Your task to perform on an android device: manage bookmarks in the chrome app Image 0: 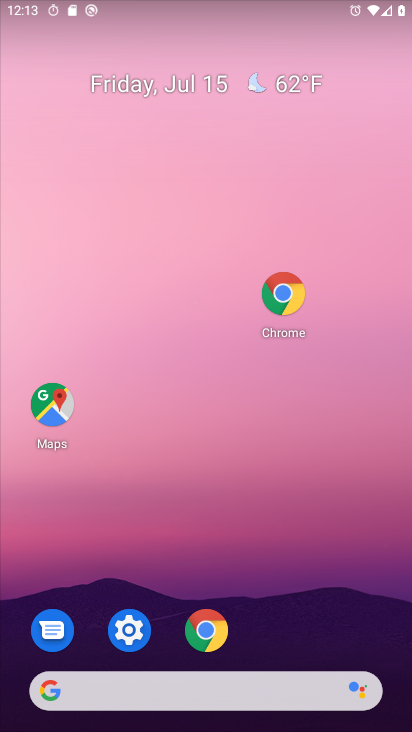
Step 0: drag from (292, 650) to (216, 95)
Your task to perform on an android device: manage bookmarks in the chrome app Image 1: 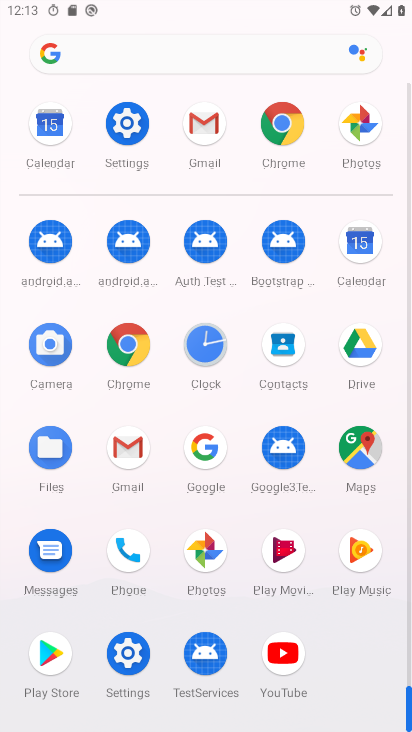
Step 1: click (289, 116)
Your task to perform on an android device: manage bookmarks in the chrome app Image 2: 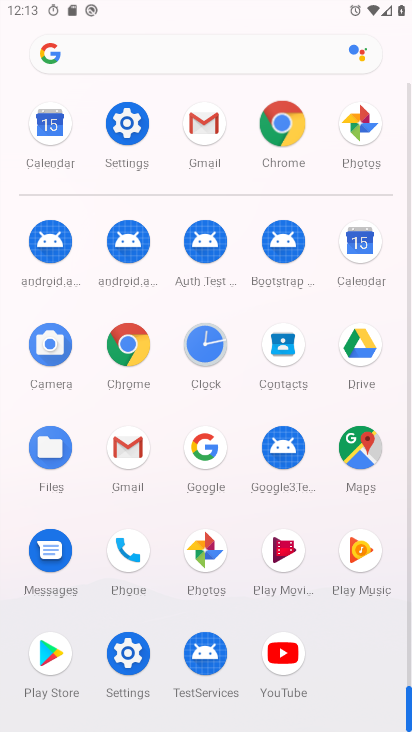
Step 2: click (285, 115)
Your task to perform on an android device: manage bookmarks in the chrome app Image 3: 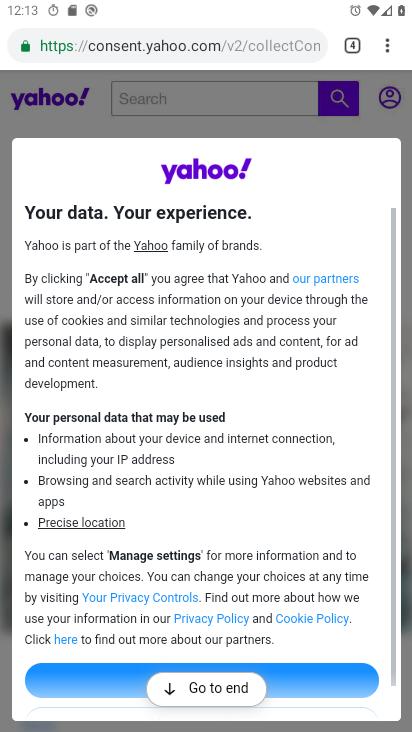
Step 3: drag from (386, 39) to (237, 240)
Your task to perform on an android device: manage bookmarks in the chrome app Image 4: 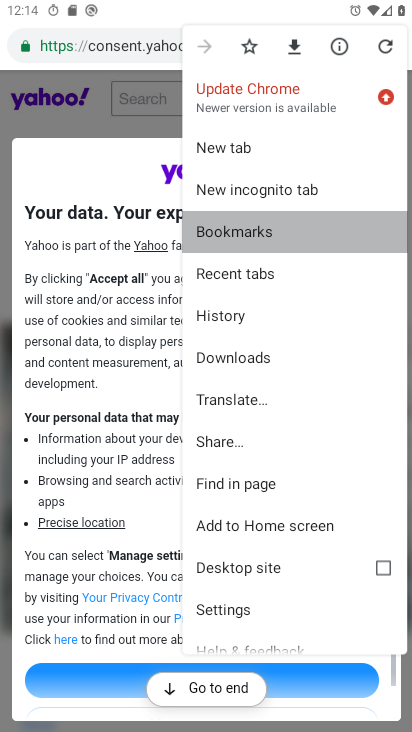
Step 4: click (237, 240)
Your task to perform on an android device: manage bookmarks in the chrome app Image 5: 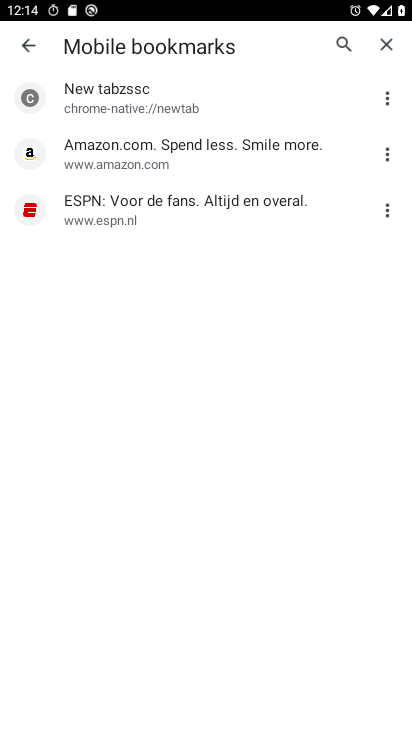
Step 5: click (237, 234)
Your task to perform on an android device: manage bookmarks in the chrome app Image 6: 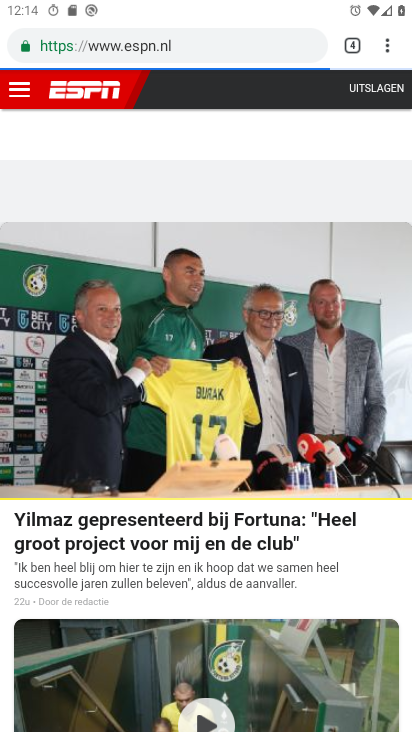
Step 6: task complete